Your task to perform on an android device: set an alarm Image 0: 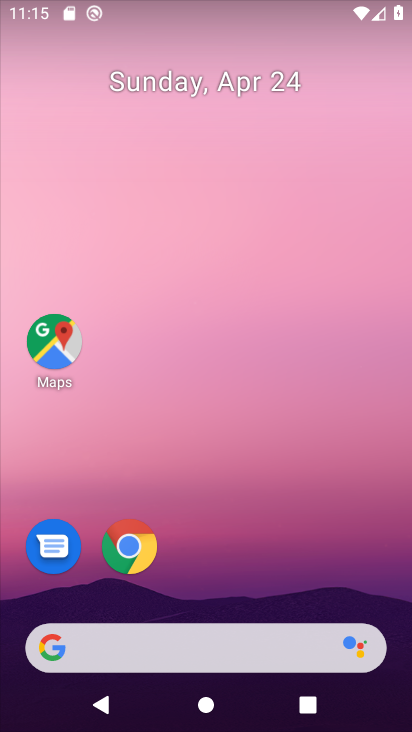
Step 0: drag from (208, 456) to (267, 98)
Your task to perform on an android device: set an alarm Image 1: 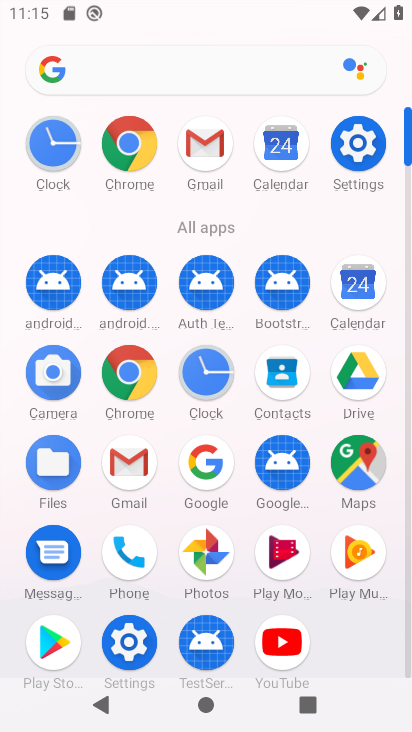
Step 1: click (213, 380)
Your task to perform on an android device: set an alarm Image 2: 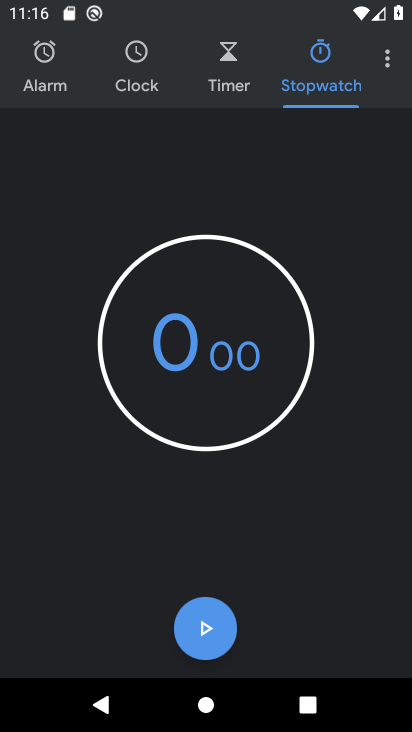
Step 2: click (43, 51)
Your task to perform on an android device: set an alarm Image 3: 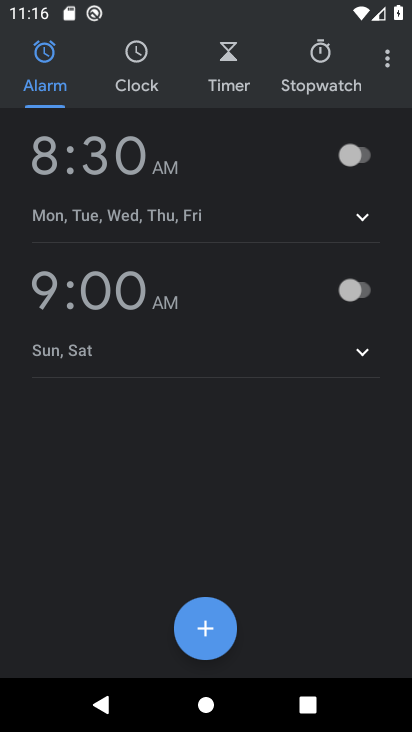
Step 3: task complete